Your task to perform on an android device: toggle sleep mode Image 0: 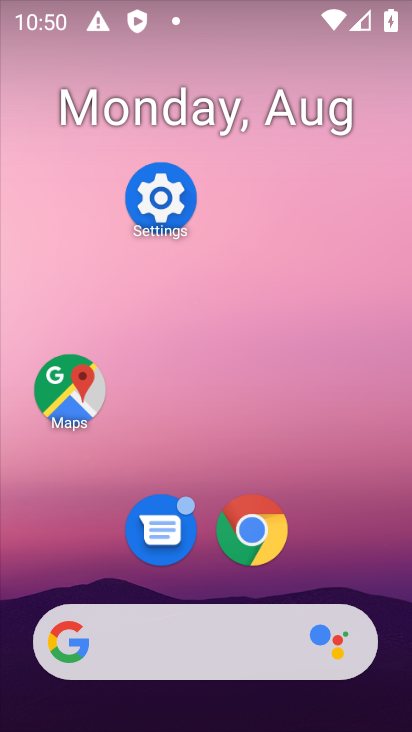
Step 0: drag from (205, 573) to (153, 210)
Your task to perform on an android device: toggle sleep mode Image 1: 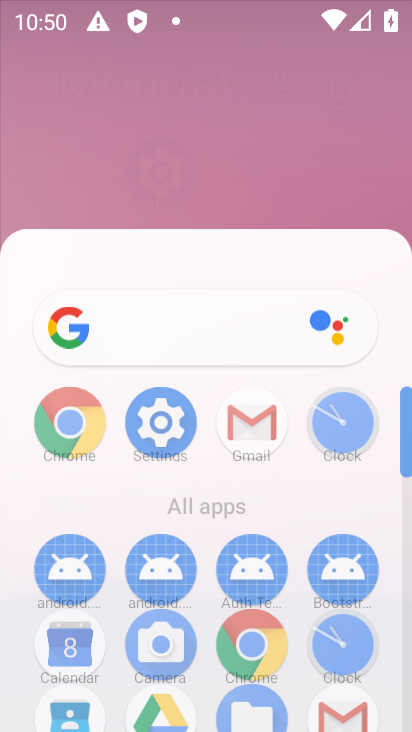
Step 1: drag from (189, 536) to (136, 160)
Your task to perform on an android device: toggle sleep mode Image 2: 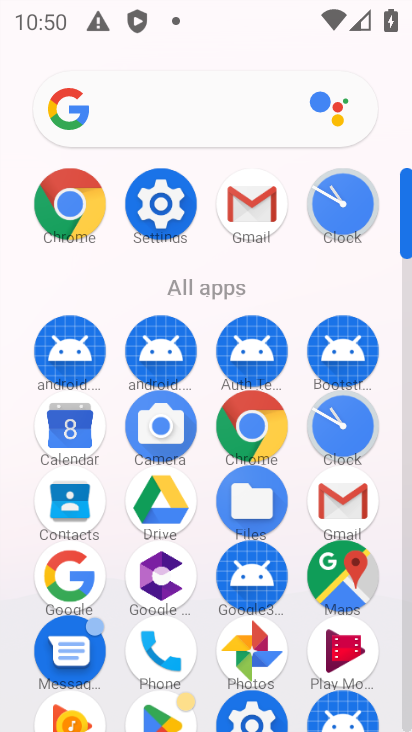
Step 2: drag from (204, 495) to (160, 173)
Your task to perform on an android device: toggle sleep mode Image 3: 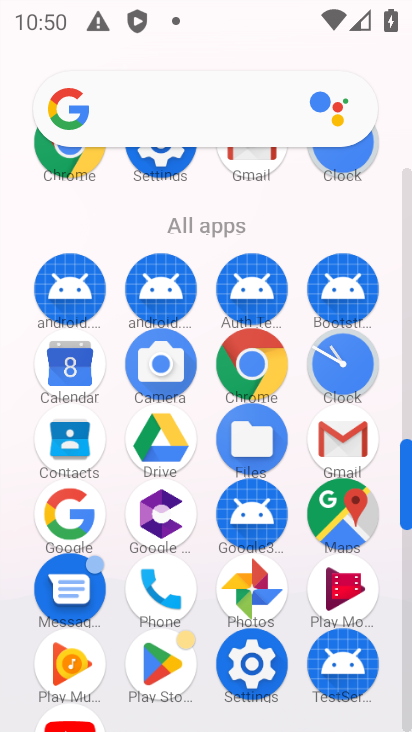
Step 3: click (334, 493)
Your task to perform on an android device: toggle sleep mode Image 4: 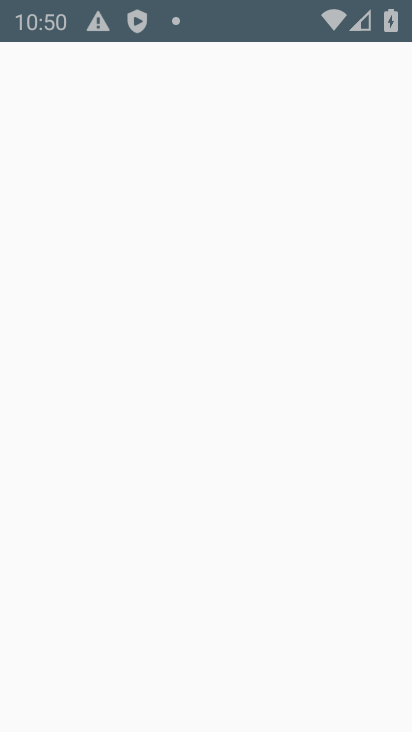
Step 4: click (335, 497)
Your task to perform on an android device: toggle sleep mode Image 5: 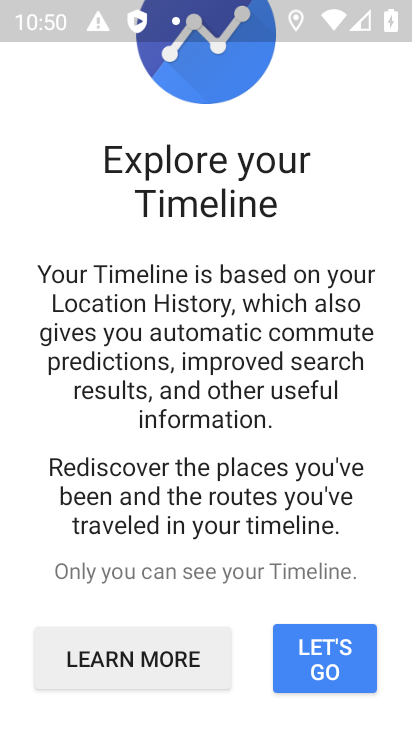
Step 5: press back button
Your task to perform on an android device: toggle sleep mode Image 6: 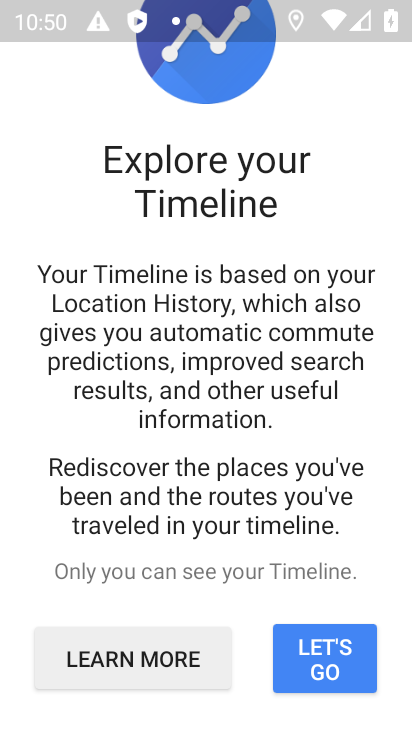
Step 6: press back button
Your task to perform on an android device: toggle sleep mode Image 7: 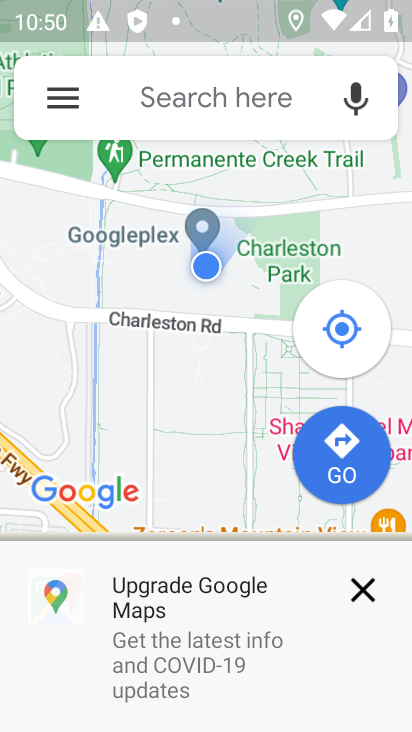
Step 7: press back button
Your task to perform on an android device: toggle sleep mode Image 8: 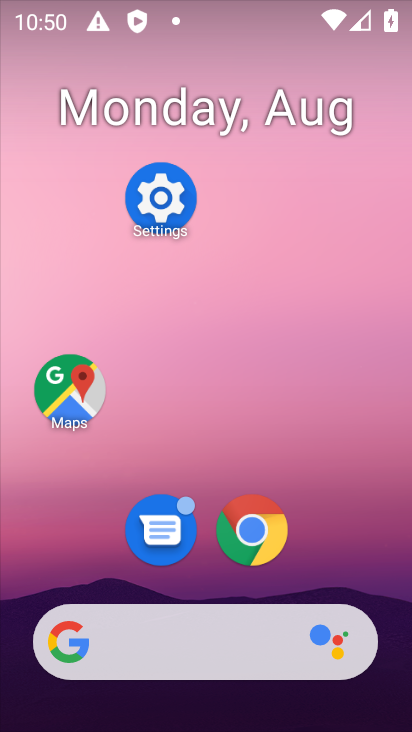
Step 8: press home button
Your task to perform on an android device: toggle sleep mode Image 9: 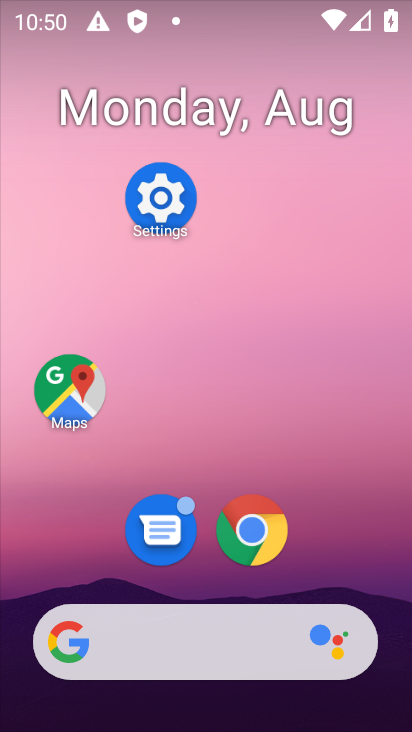
Step 9: drag from (241, 631) to (165, 235)
Your task to perform on an android device: toggle sleep mode Image 10: 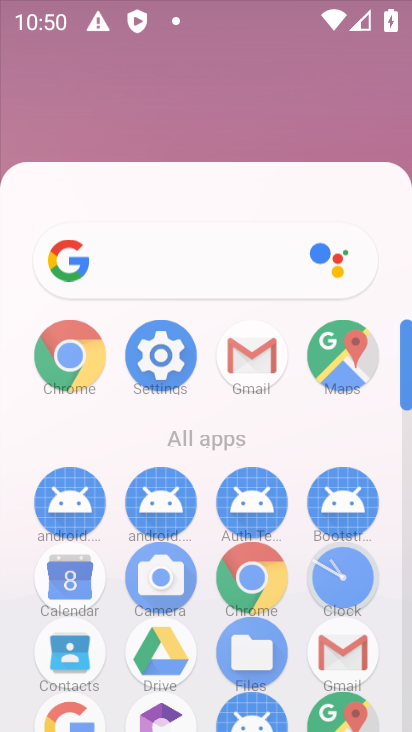
Step 10: drag from (180, 435) to (143, 204)
Your task to perform on an android device: toggle sleep mode Image 11: 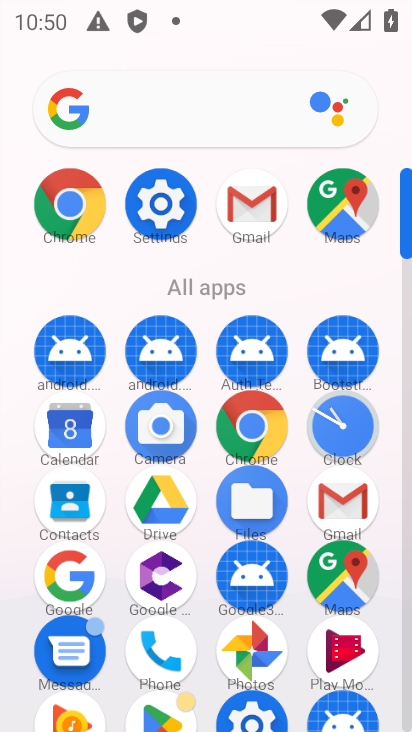
Step 11: click (149, 198)
Your task to perform on an android device: toggle sleep mode Image 12: 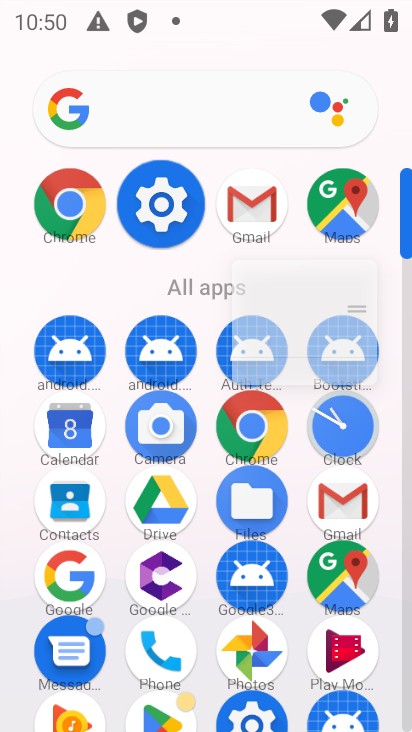
Step 12: click (156, 220)
Your task to perform on an android device: toggle sleep mode Image 13: 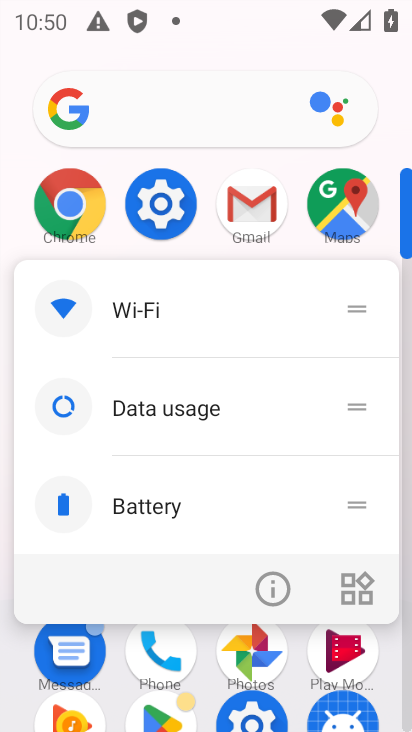
Step 13: click (157, 220)
Your task to perform on an android device: toggle sleep mode Image 14: 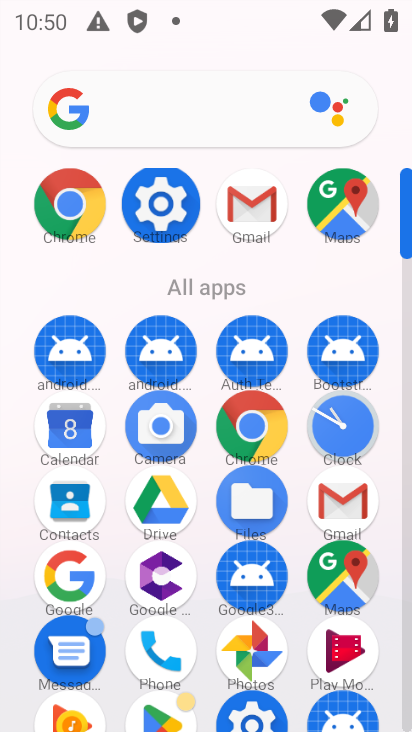
Step 14: click (158, 220)
Your task to perform on an android device: toggle sleep mode Image 15: 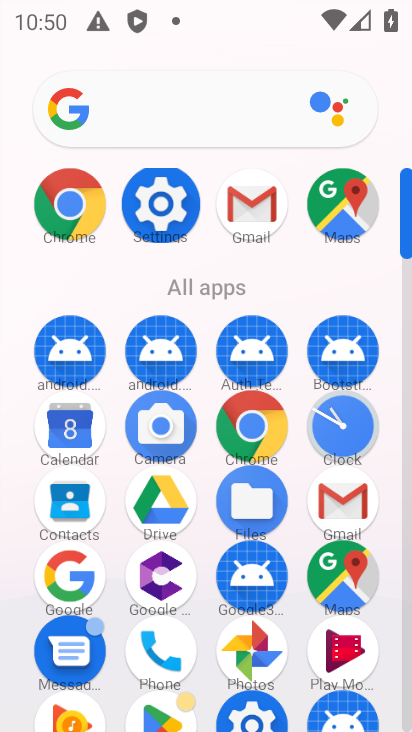
Step 15: click (159, 230)
Your task to perform on an android device: toggle sleep mode Image 16: 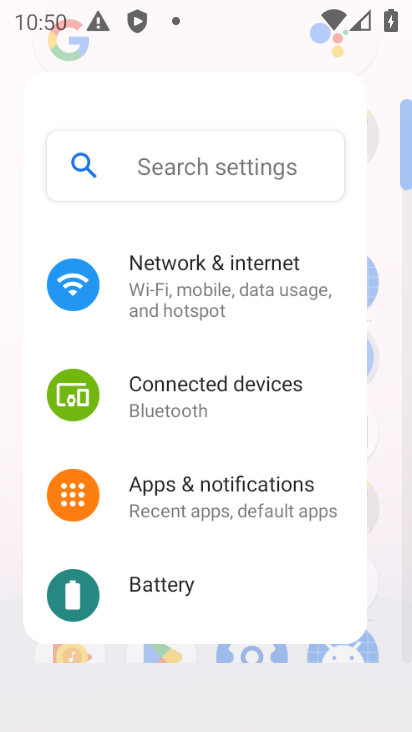
Step 16: click (151, 245)
Your task to perform on an android device: toggle sleep mode Image 17: 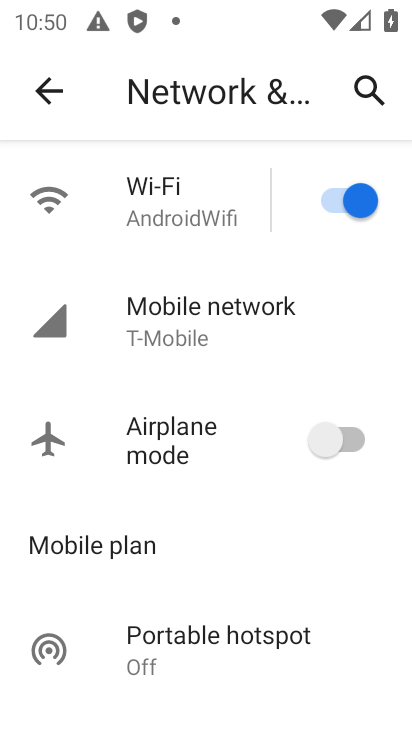
Step 17: click (47, 88)
Your task to perform on an android device: toggle sleep mode Image 18: 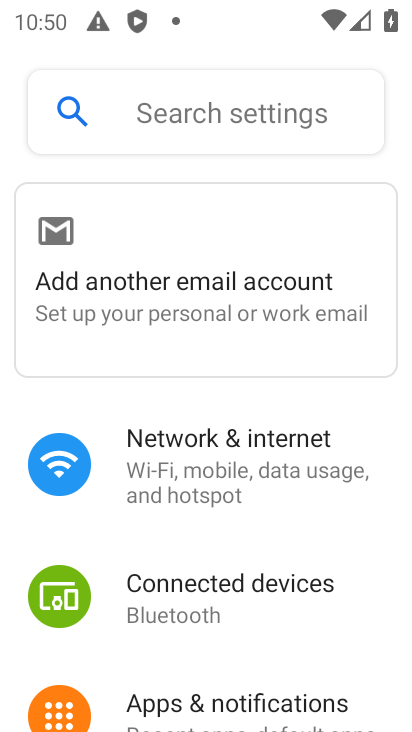
Step 18: drag from (178, 372) to (166, 227)
Your task to perform on an android device: toggle sleep mode Image 19: 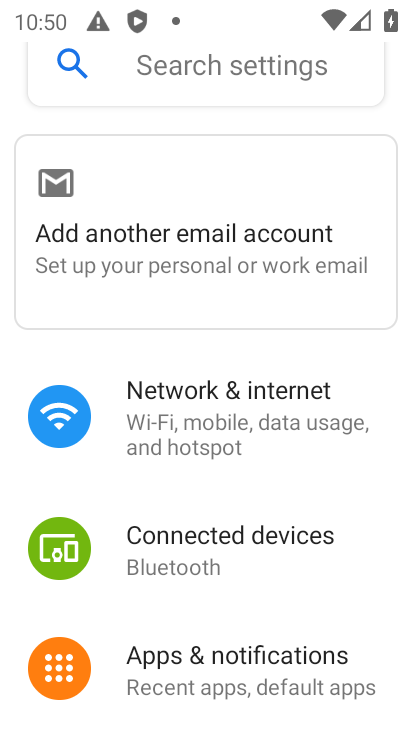
Step 19: drag from (218, 517) to (218, 230)
Your task to perform on an android device: toggle sleep mode Image 20: 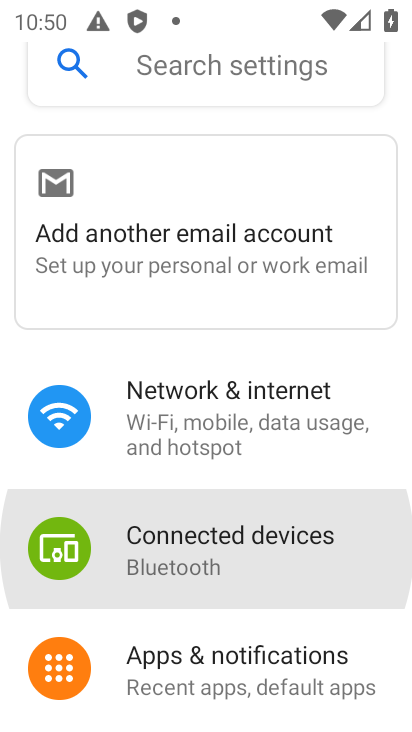
Step 20: drag from (257, 588) to (247, 391)
Your task to perform on an android device: toggle sleep mode Image 21: 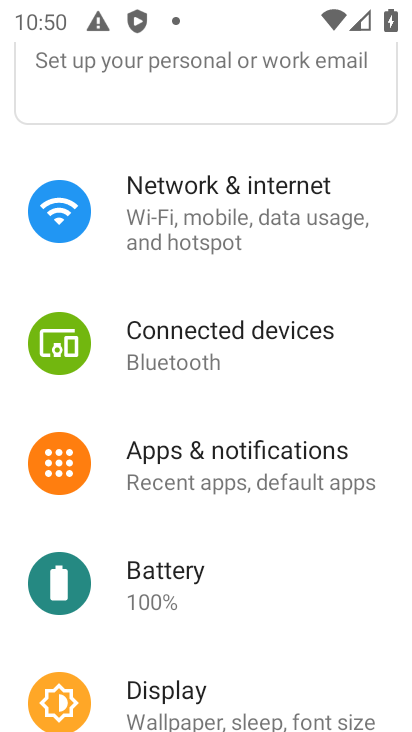
Step 21: drag from (283, 613) to (280, 273)
Your task to perform on an android device: toggle sleep mode Image 22: 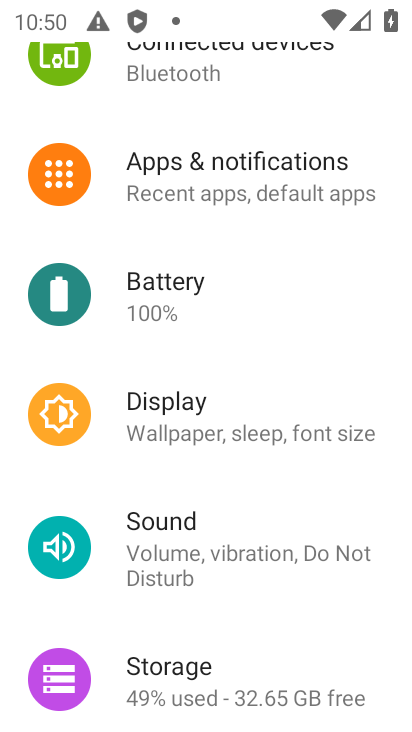
Step 22: drag from (265, 582) to (219, 299)
Your task to perform on an android device: toggle sleep mode Image 23: 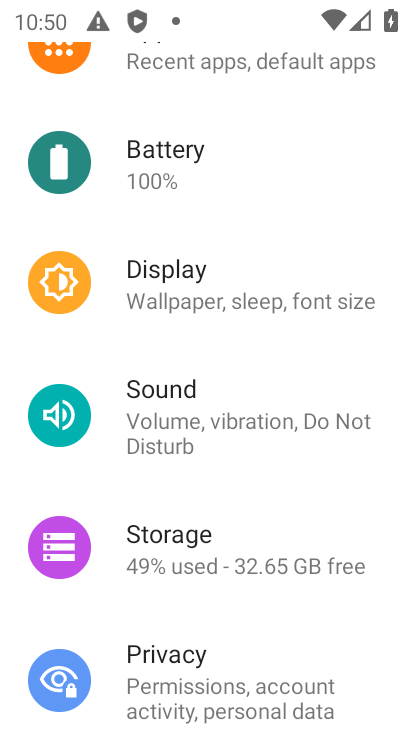
Step 23: click (169, 290)
Your task to perform on an android device: toggle sleep mode Image 24: 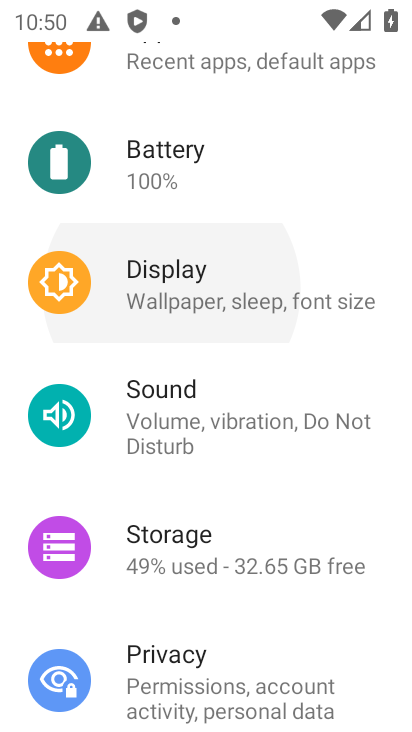
Step 24: click (170, 289)
Your task to perform on an android device: toggle sleep mode Image 25: 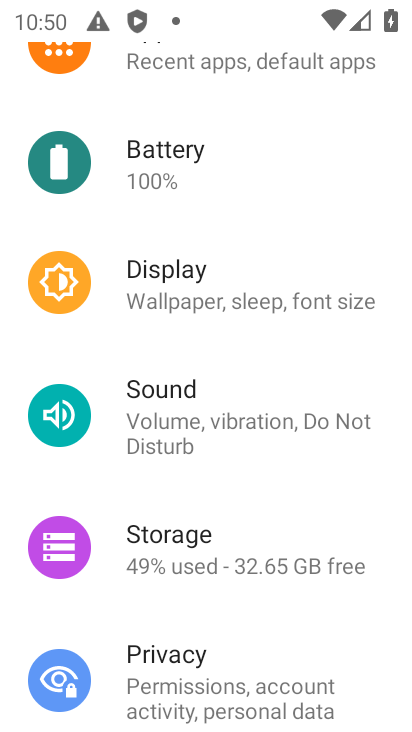
Step 25: click (173, 289)
Your task to perform on an android device: toggle sleep mode Image 26: 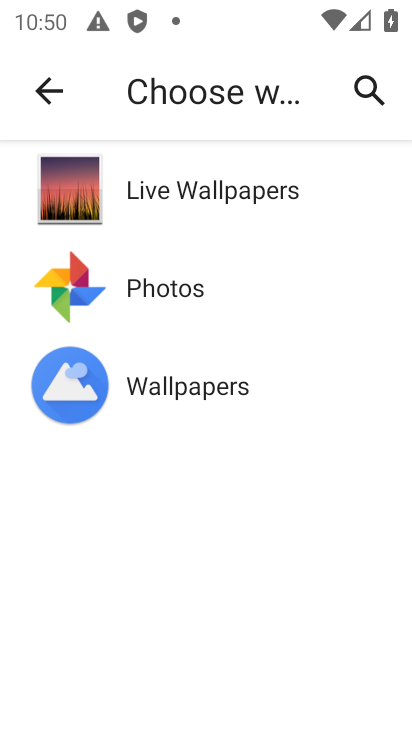
Step 26: click (51, 85)
Your task to perform on an android device: toggle sleep mode Image 27: 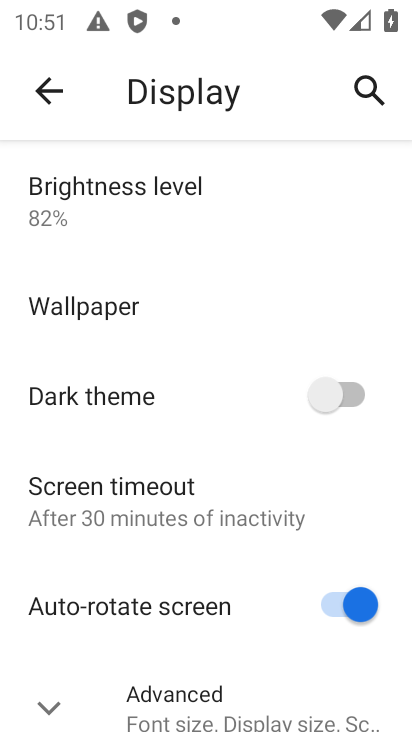
Step 27: drag from (158, 615) to (142, 382)
Your task to perform on an android device: toggle sleep mode Image 28: 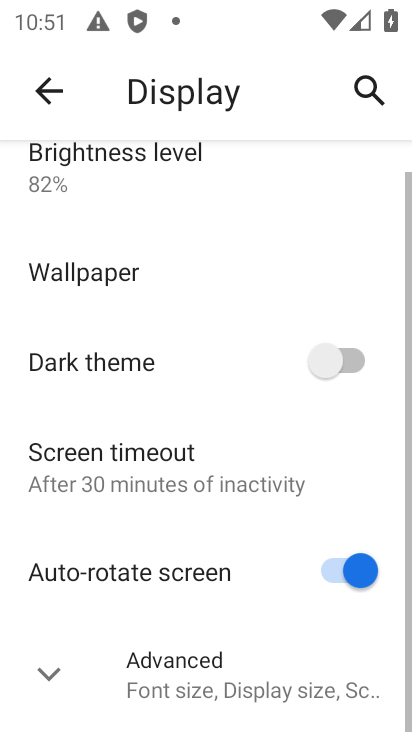
Step 28: drag from (132, 519) to (97, 255)
Your task to perform on an android device: toggle sleep mode Image 29: 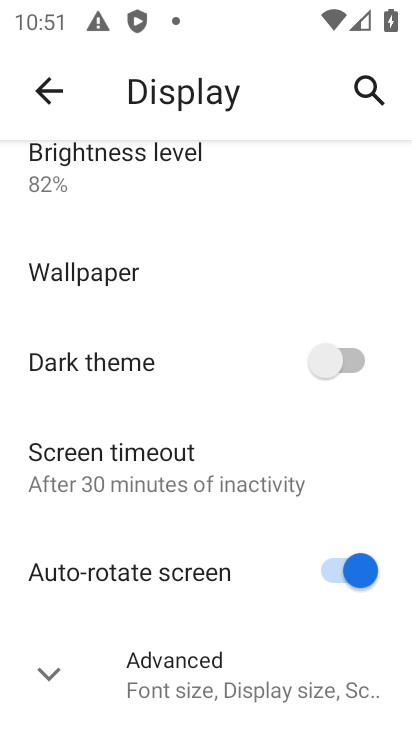
Step 29: drag from (177, 634) to (116, 321)
Your task to perform on an android device: toggle sleep mode Image 30: 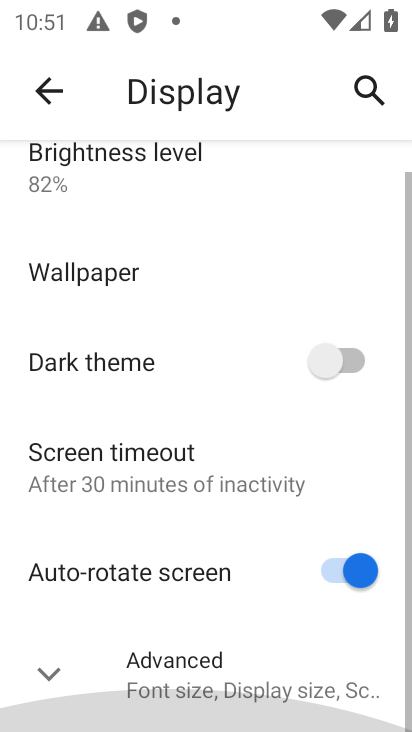
Step 30: drag from (169, 471) to (249, 262)
Your task to perform on an android device: toggle sleep mode Image 31: 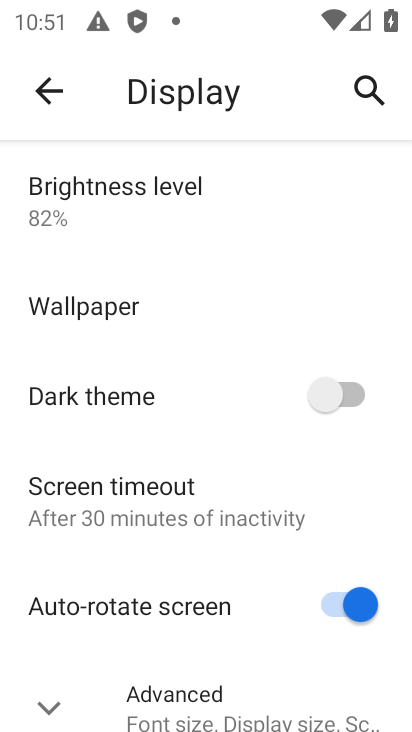
Step 31: drag from (188, 614) to (162, 342)
Your task to perform on an android device: toggle sleep mode Image 32: 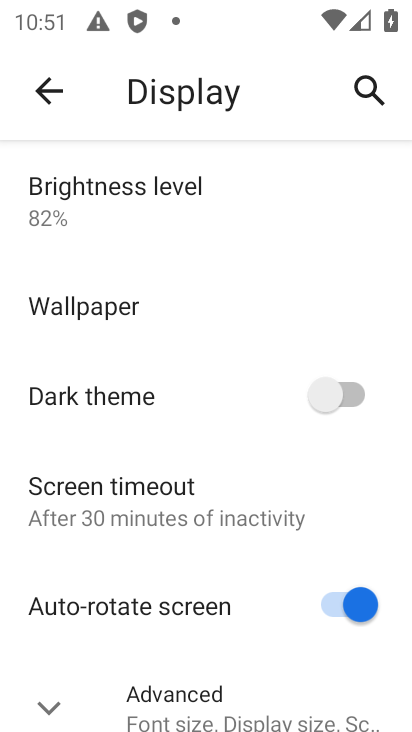
Step 32: drag from (215, 617) to (151, 162)
Your task to perform on an android device: toggle sleep mode Image 33: 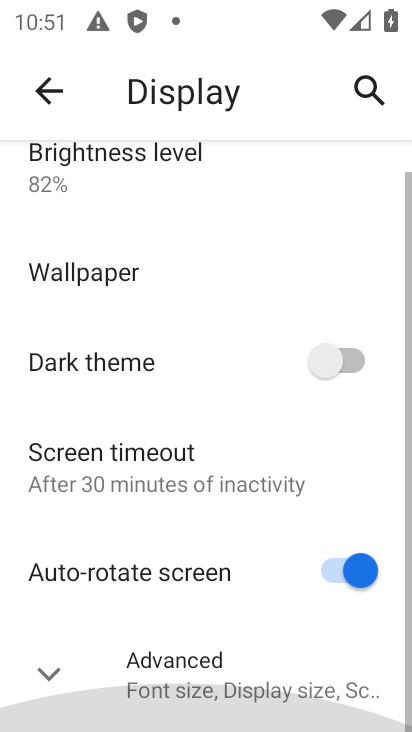
Step 33: drag from (216, 573) to (177, 184)
Your task to perform on an android device: toggle sleep mode Image 34: 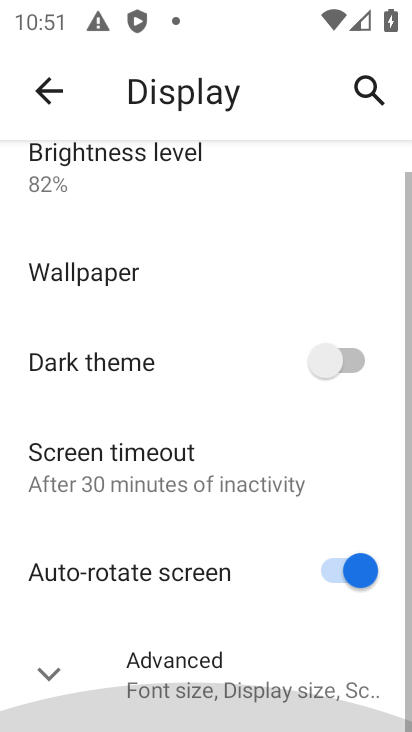
Step 34: drag from (208, 616) to (216, 246)
Your task to perform on an android device: toggle sleep mode Image 35: 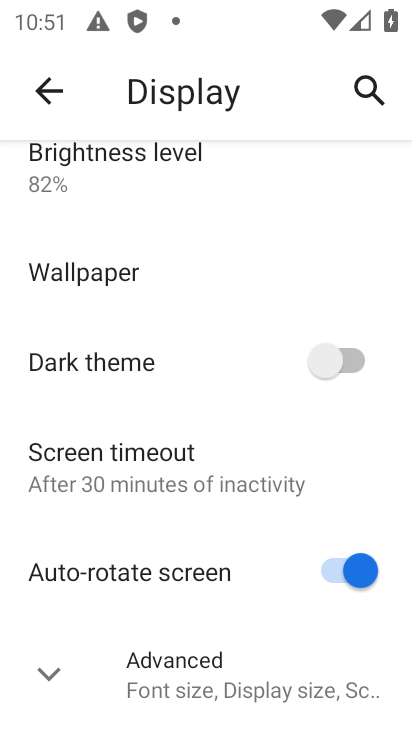
Step 35: click (191, 686)
Your task to perform on an android device: toggle sleep mode Image 36: 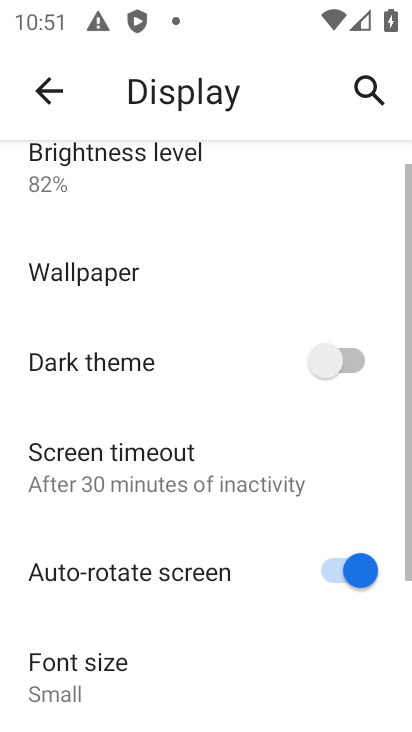
Step 36: drag from (168, 676) to (175, 223)
Your task to perform on an android device: toggle sleep mode Image 37: 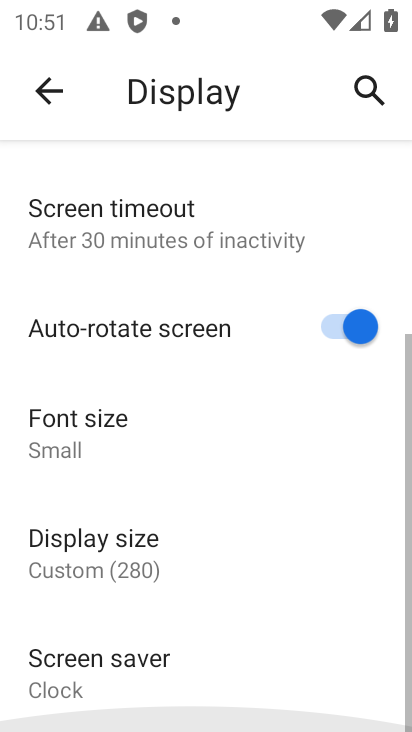
Step 37: drag from (183, 367) to (175, 44)
Your task to perform on an android device: toggle sleep mode Image 38: 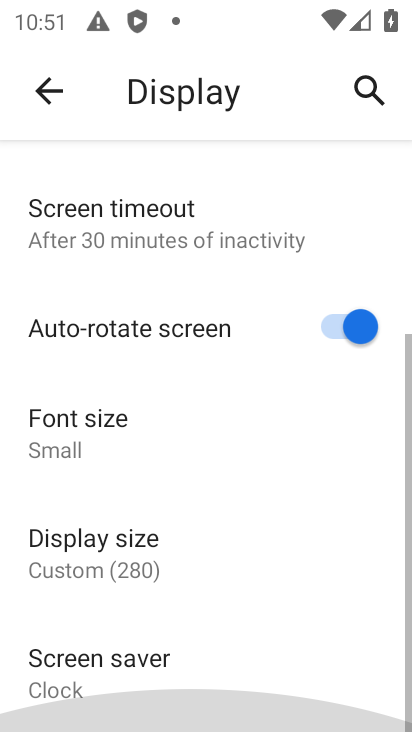
Step 38: drag from (178, 522) to (102, 228)
Your task to perform on an android device: toggle sleep mode Image 39: 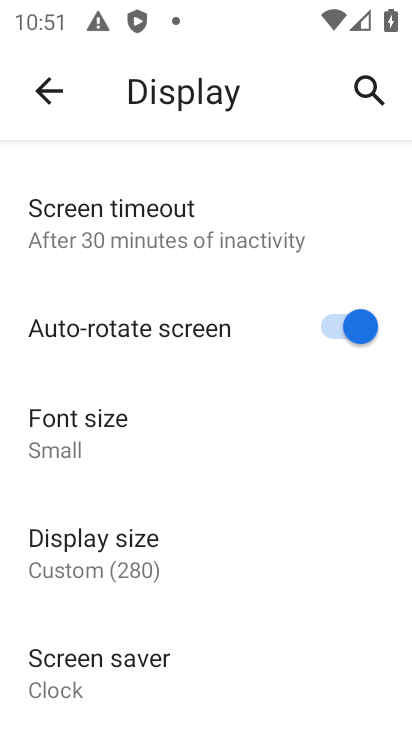
Step 39: drag from (146, 617) to (100, 302)
Your task to perform on an android device: toggle sleep mode Image 40: 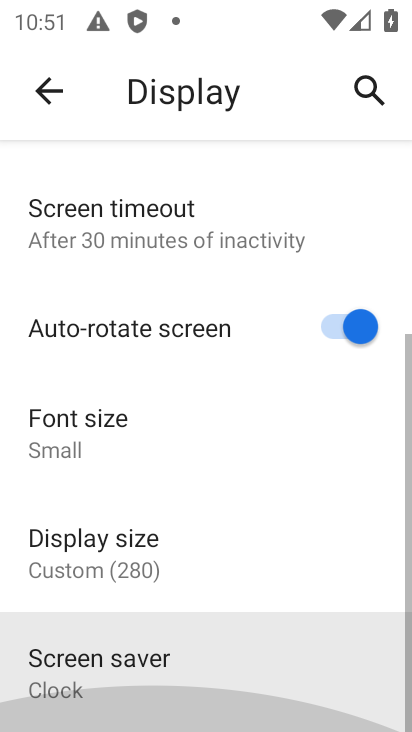
Step 40: drag from (163, 612) to (156, 455)
Your task to perform on an android device: toggle sleep mode Image 41: 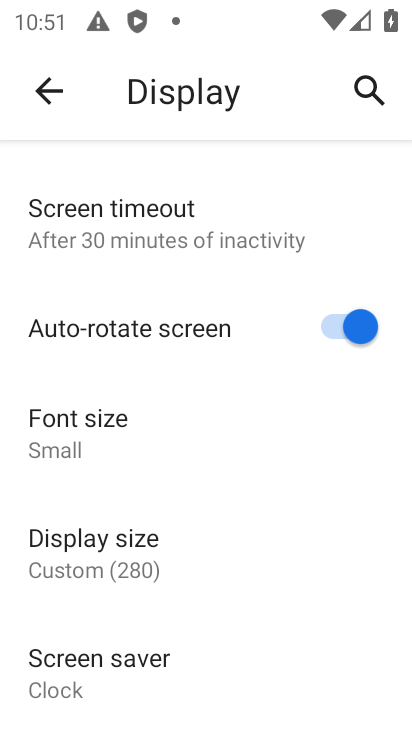
Step 41: drag from (58, 330) to (141, 623)
Your task to perform on an android device: toggle sleep mode Image 42: 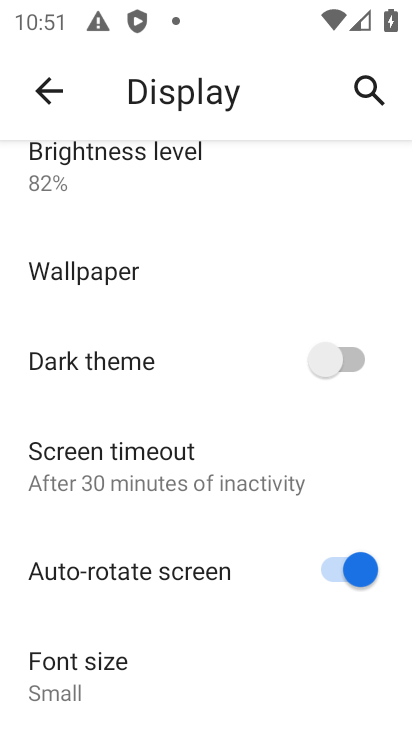
Step 42: click (140, 467)
Your task to perform on an android device: toggle sleep mode Image 43: 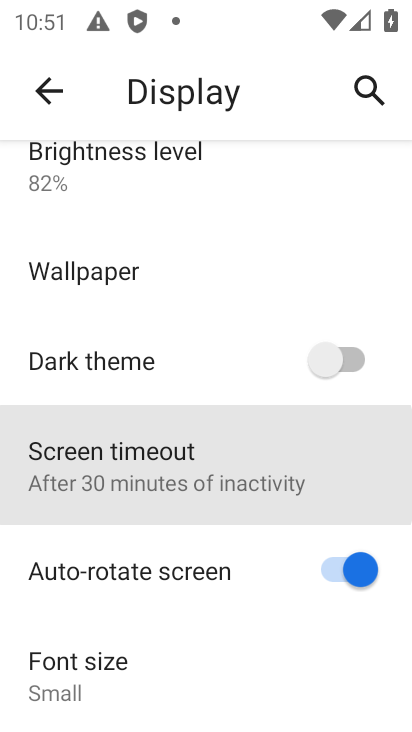
Step 43: click (144, 474)
Your task to perform on an android device: toggle sleep mode Image 44: 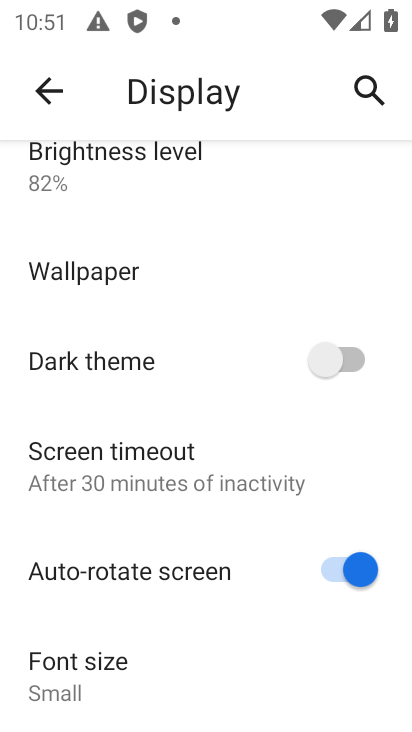
Step 44: click (139, 479)
Your task to perform on an android device: toggle sleep mode Image 45: 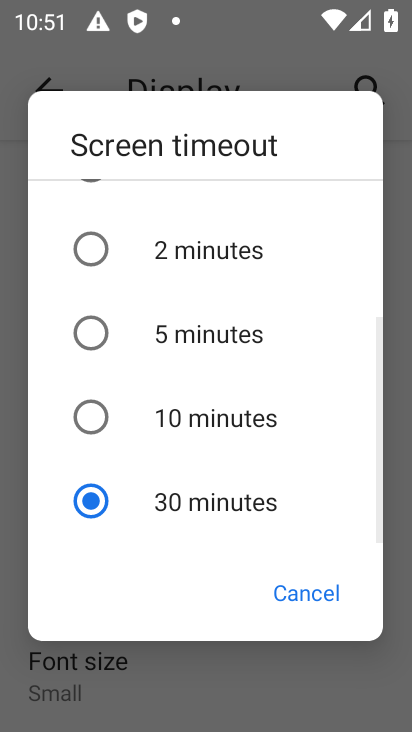
Step 45: click (83, 411)
Your task to perform on an android device: toggle sleep mode Image 46: 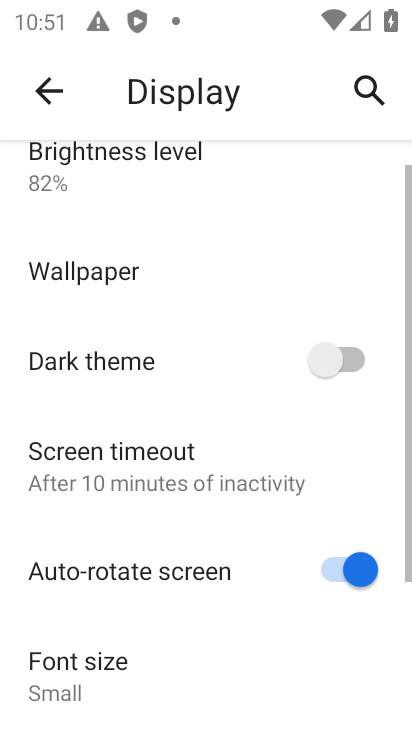
Step 46: click (84, 411)
Your task to perform on an android device: toggle sleep mode Image 47: 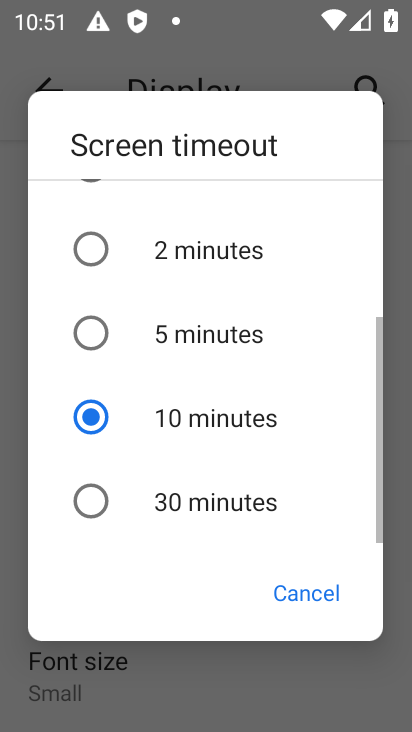
Step 47: task complete